Your task to perform on an android device: turn on notifications settings in the gmail app Image 0: 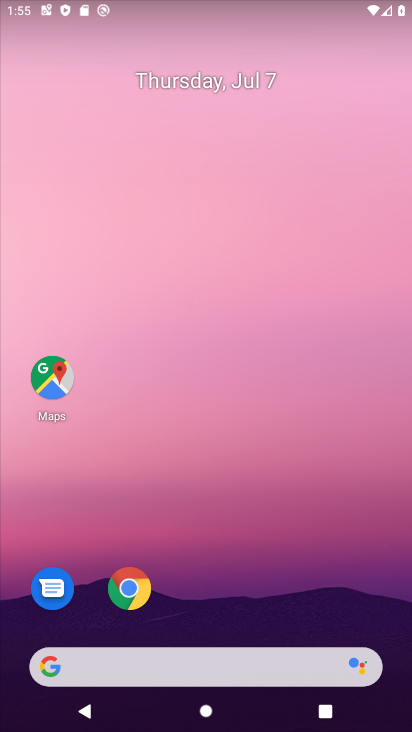
Step 0: drag from (31, 689) to (175, 4)
Your task to perform on an android device: turn on notifications settings in the gmail app Image 1: 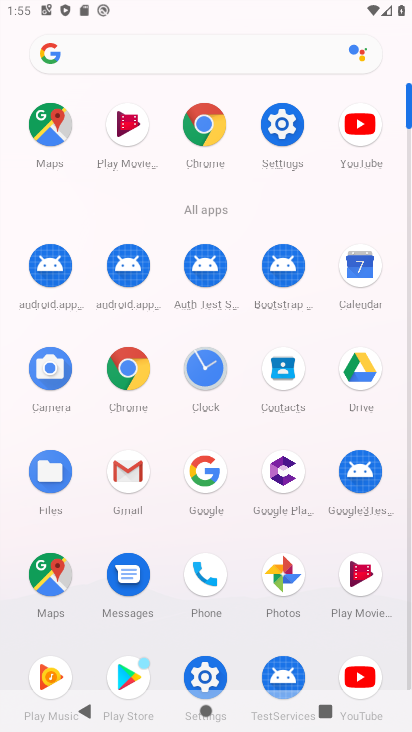
Step 1: click (119, 461)
Your task to perform on an android device: turn on notifications settings in the gmail app Image 2: 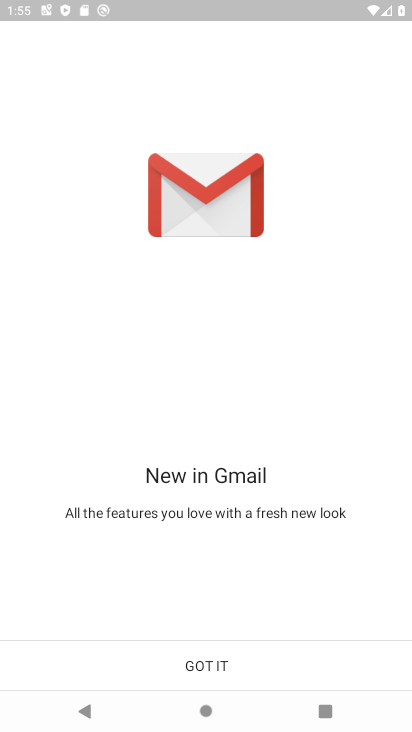
Step 2: click (210, 661)
Your task to perform on an android device: turn on notifications settings in the gmail app Image 3: 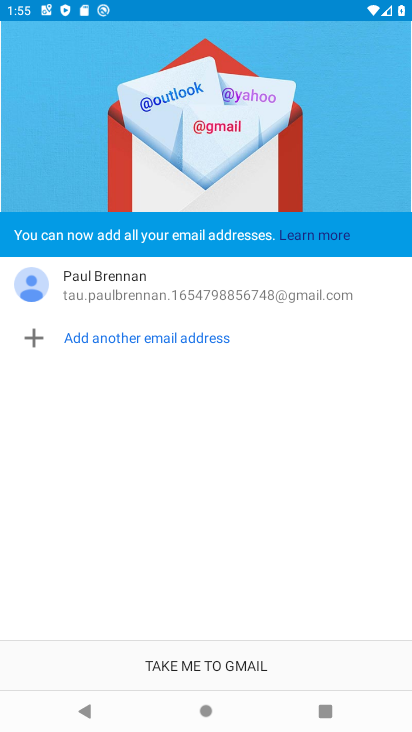
Step 3: click (214, 664)
Your task to perform on an android device: turn on notifications settings in the gmail app Image 4: 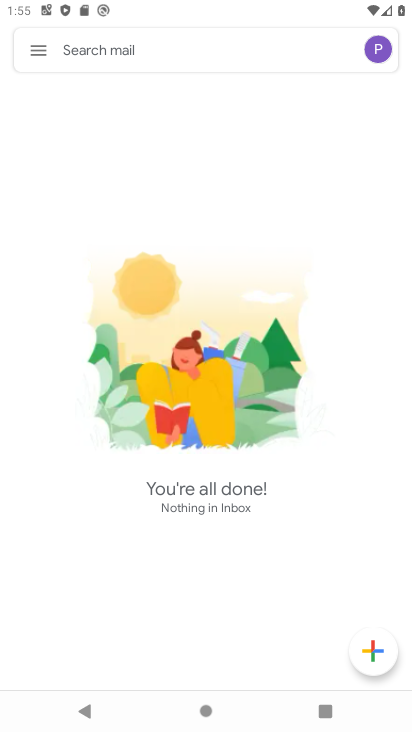
Step 4: click (37, 52)
Your task to perform on an android device: turn on notifications settings in the gmail app Image 5: 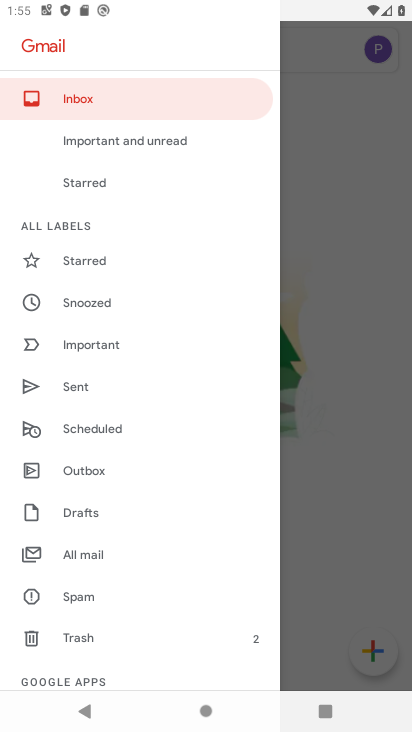
Step 5: drag from (144, 602) to (125, 222)
Your task to perform on an android device: turn on notifications settings in the gmail app Image 6: 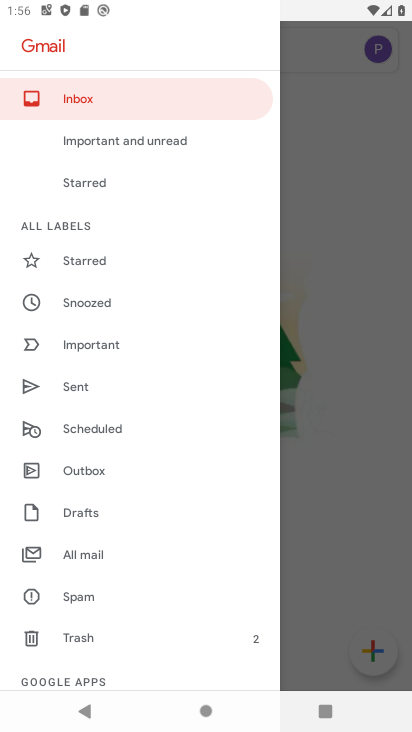
Step 6: drag from (155, 624) to (146, 228)
Your task to perform on an android device: turn on notifications settings in the gmail app Image 7: 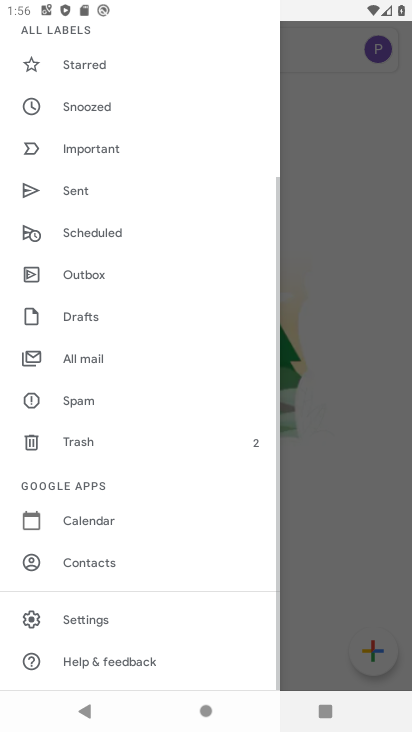
Step 7: click (92, 617)
Your task to perform on an android device: turn on notifications settings in the gmail app Image 8: 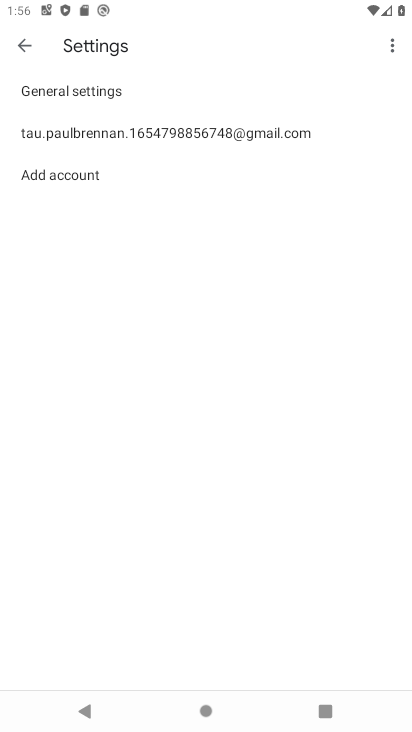
Step 8: click (89, 131)
Your task to perform on an android device: turn on notifications settings in the gmail app Image 9: 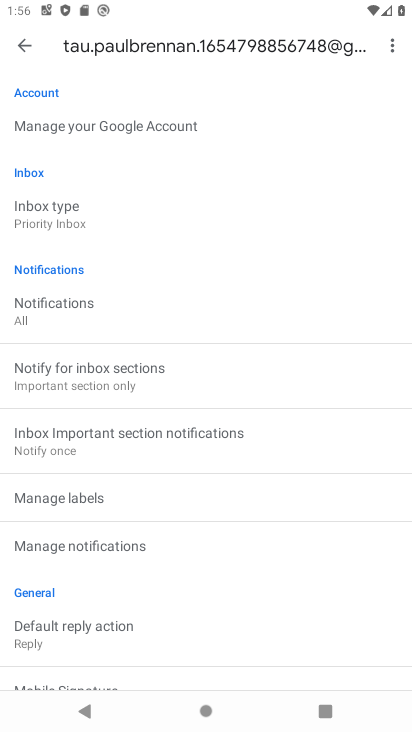
Step 9: drag from (169, 650) to (196, 391)
Your task to perform on an android device: turn on notifications settings in the gmail app Image 10: 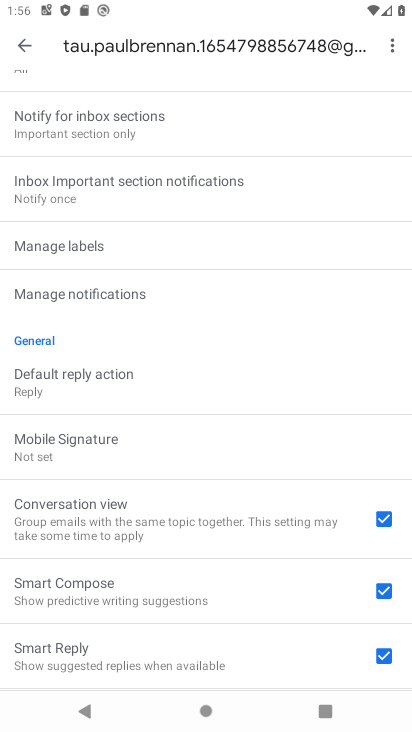
Step 10: drag from (171, 593) to (194, 390)
Your task to perform on an android device: turn on notifications settings in the gmail app Image 11: 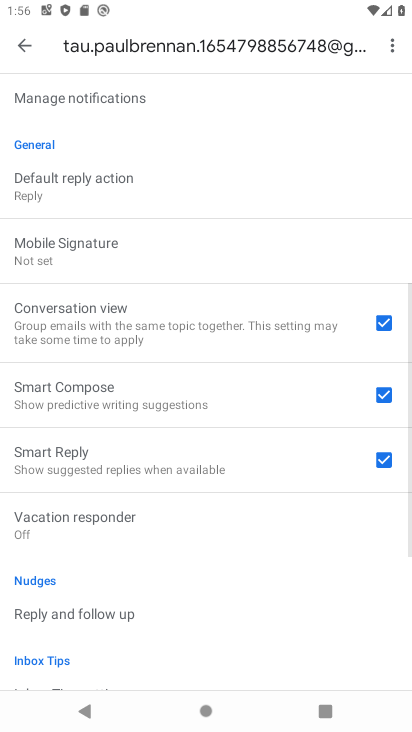
Step 11: drag from (167, 240) to (159, 548)
Your task to perform on an android device: turn on notifications settings in the gmail app Image 12: 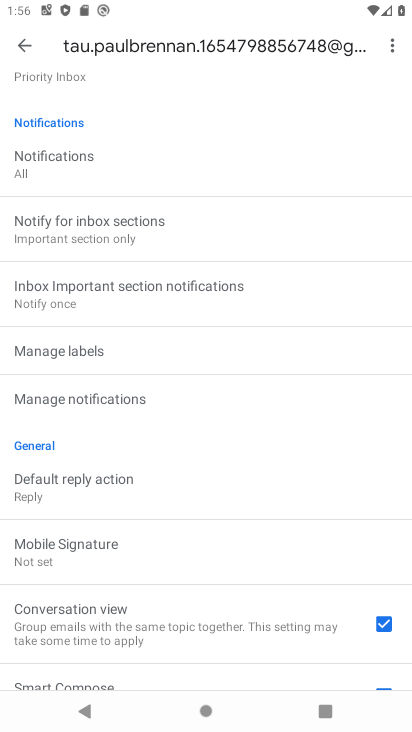
Step 12: drag from (172, 149) to (164, 489)
Your task to perform on an android device: turn on notifications settings in the gmail app Image 13: 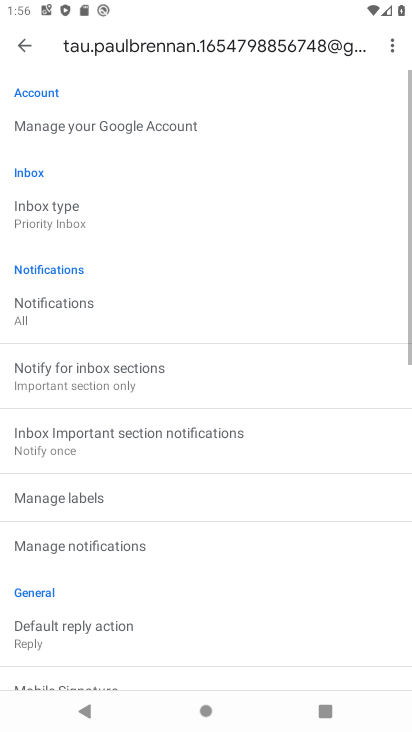
Step 13: click (55, 161)
Your task to perform on an android device: turn on notifications settings in the gmail app Image 14: 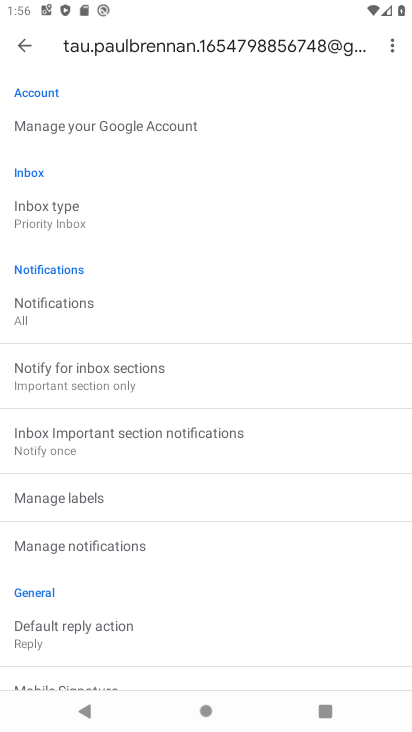
Step 14: click (57, 302)
Your task to perform on an android device: turn on notifications settings in the gmail app Image 15: 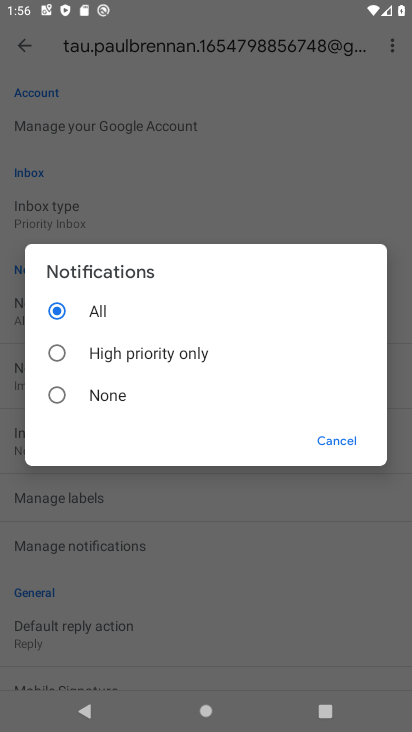
Step 15: task complete